Your task to perform on an android device: Open Yahoo.com Image 0: 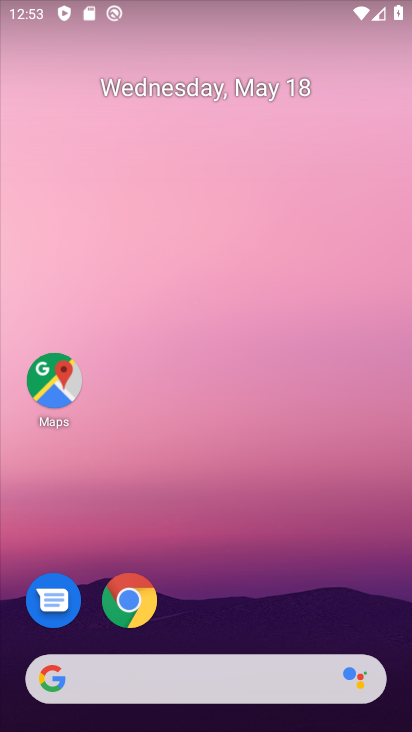
Step 0: click (127, 596)
Your task to perform on an android device: Open Yahoo.com Image 1: 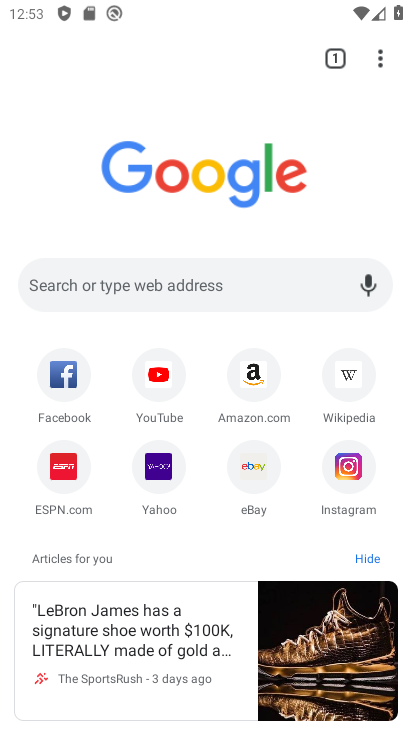
Step 1: click (160, 291)
Your task to perform on an android device: Open Yahoo.com Image 2: 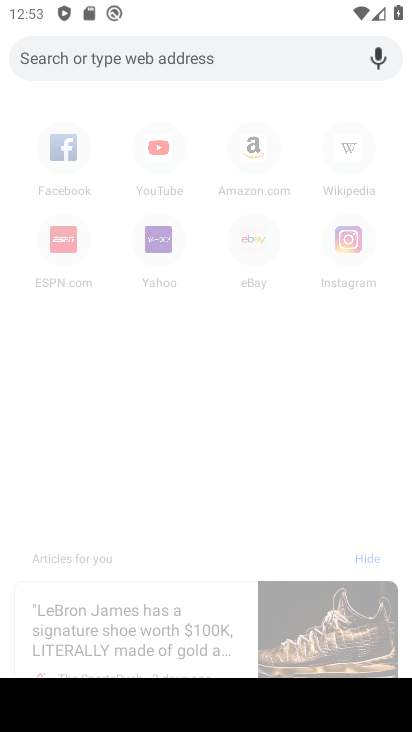
Step 2: click (74, 56)
Your task to perform on an android device: Open Yahoo.com Image 3: 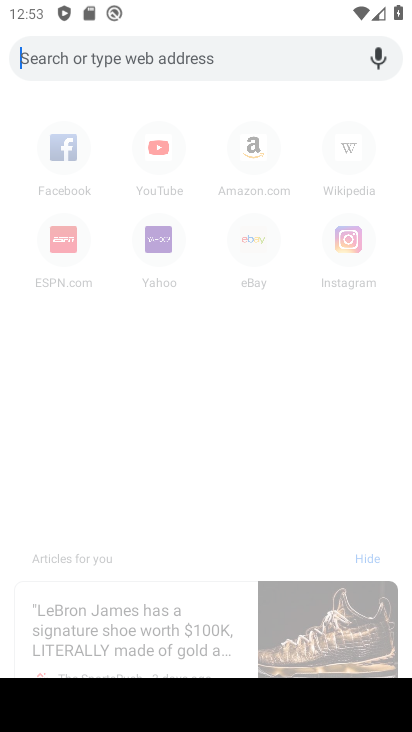
Step 3: type "Yahoo.com"
Your task to perform on an android device: Open Yahoo.com Image 4: 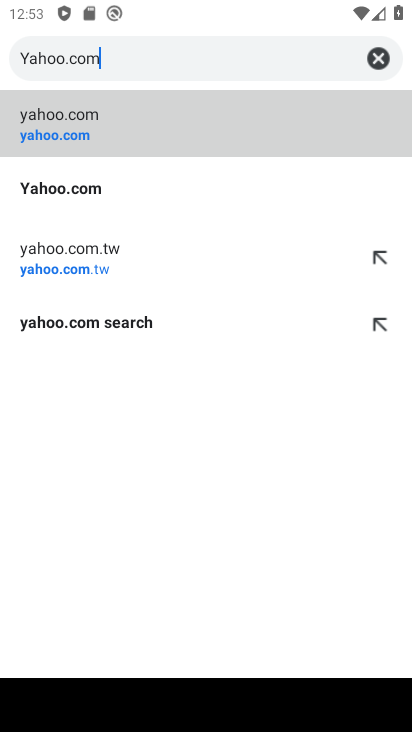
Step 4: click (88, 180)
Your task to perform on an android device: Open Yahoo.com Image 5: 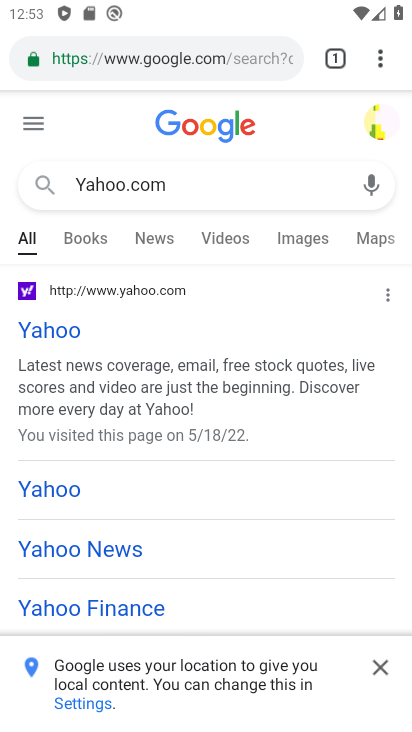
Step 5: click (67, 325)
Your task to perform on an android device: Open Yahoo.com Image 6: 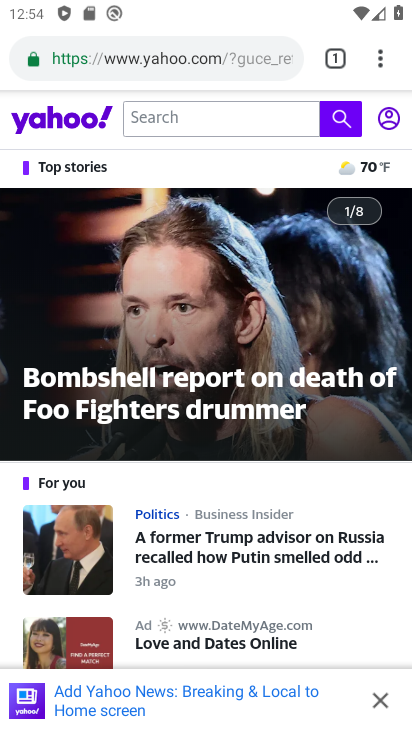
Step 6: task complete